Your task to perform on an android device: Go to battery settings Image 0: 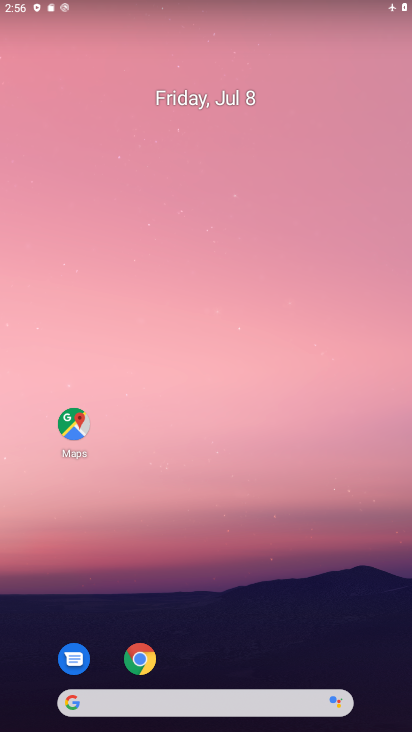
Step 0: drag from (240, 648) to (250, 232)
Your task to perform on an android device: Go to battery settings Image 1: 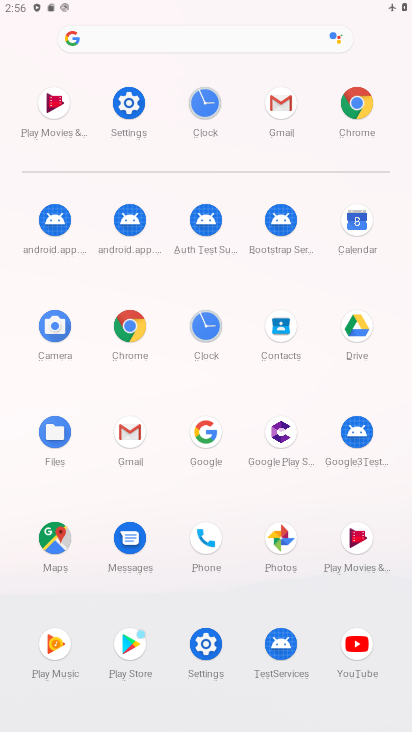
Step 1: click (208, 649)
Your task to perform on an android device: Go to battery settings Image 2: 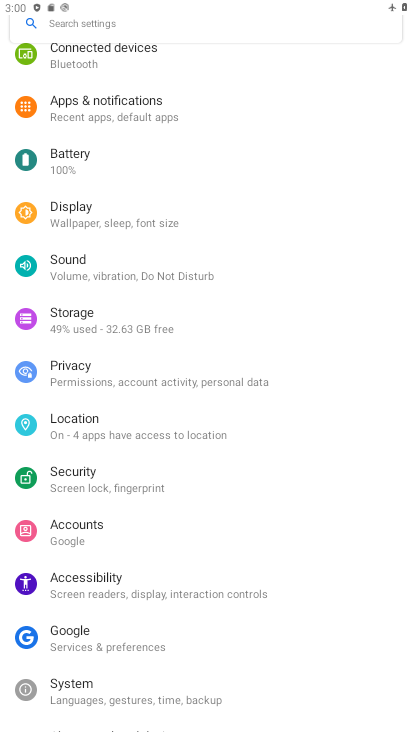
Step 2: click (89, 161)
Your task to perform on an android device: Go to battery settings Image 3: 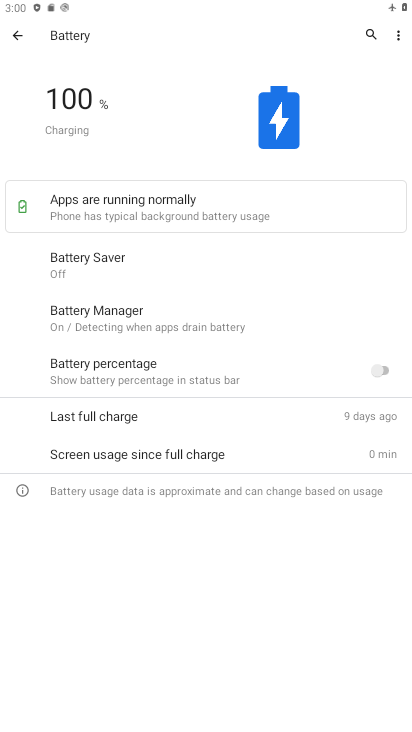
Step 3: task complete